Your task to perform on an android device: manage bookmarks in the chrome app Image 0: 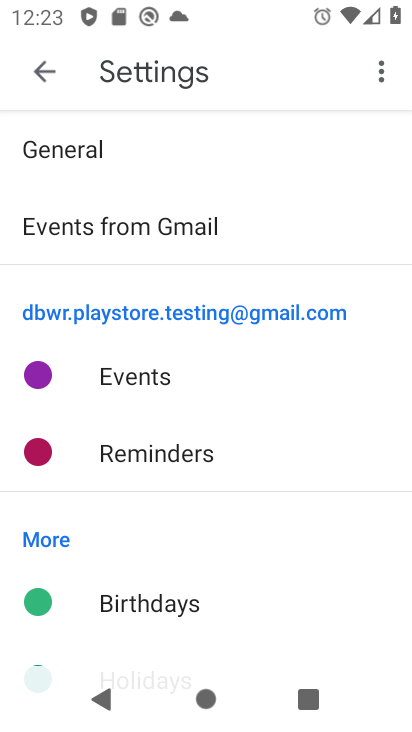
Step 0: press home button
Your task to perform on an android device: manage bookmarks in the chrome app Image 1: 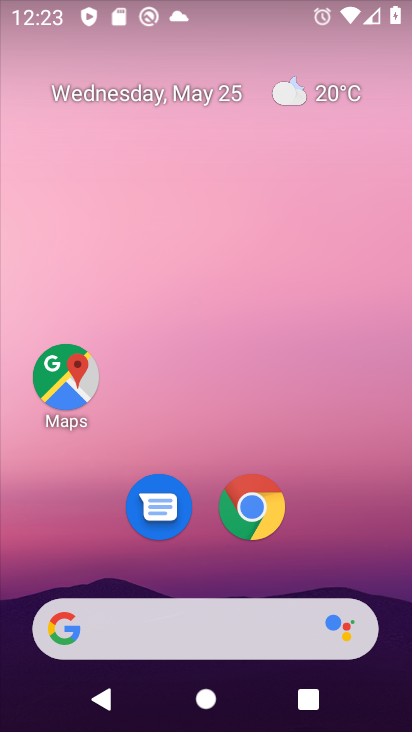
Step 1: drag from (364, 571) to (351, 95)
Your task to perform on an android device: manage bookmarks in the chrome app Image 2: 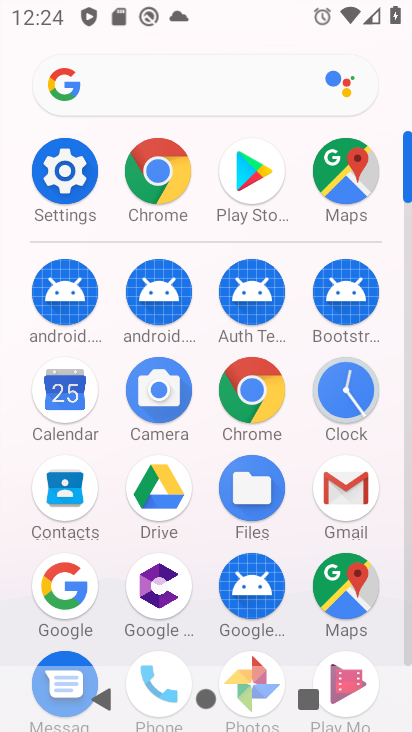
Step 2: click (237, 399)
Your task to perform on an android device: manage bookmarks in the chrome app Image 3: 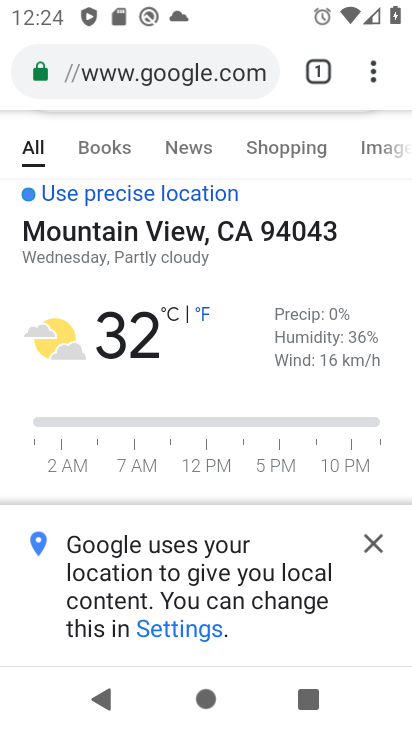
Step 3: task complete